Your task to perform on an android device: Go to ESPN.com Image 0: 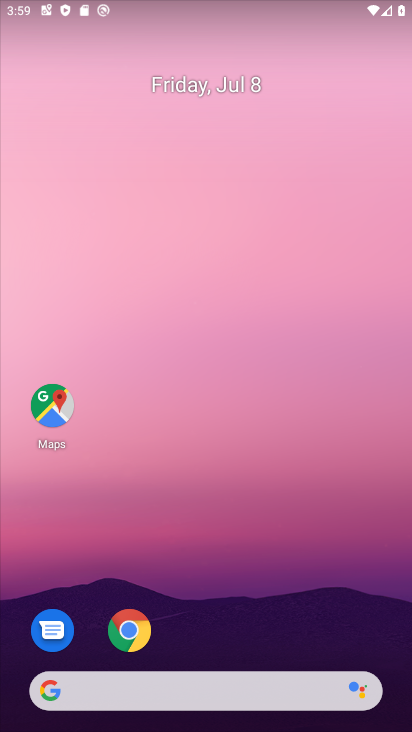
Step 0: drag from (326, 614) to (293, 175)
Your task to perform on an android device: Go to ESPN.com Image 1: 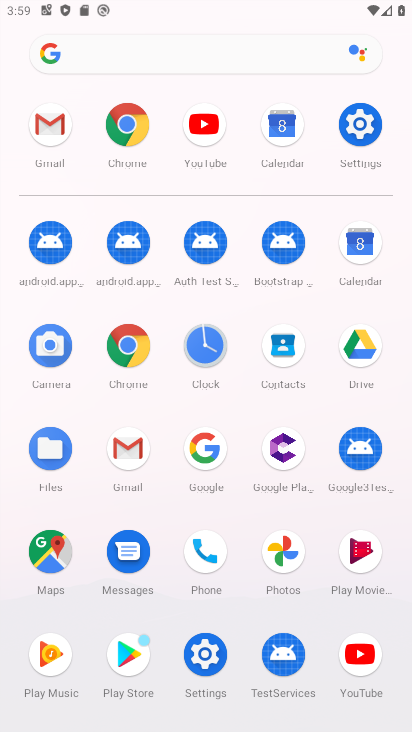
Step 1: click (142, 143)
Your task to perform on an android device: Go to ESPN.com Image 2: 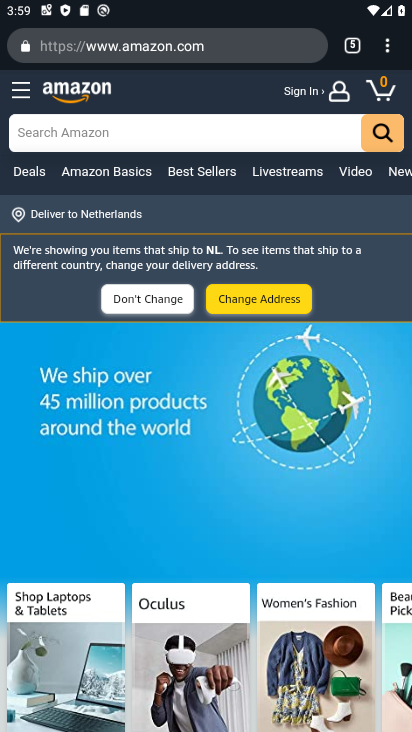
Step 2: click (234, 53)
Your task to perform on an android device: Go to ESPN.com Image 3: 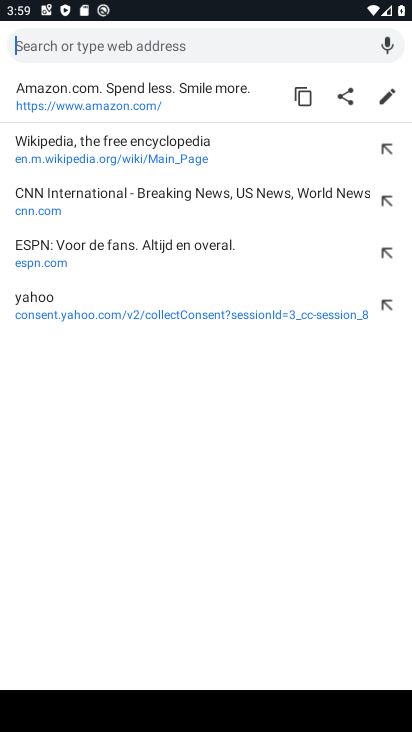
Step 3: click (216, 235)
Your task to perform on an android device: Go to ESPN.com Image 4: 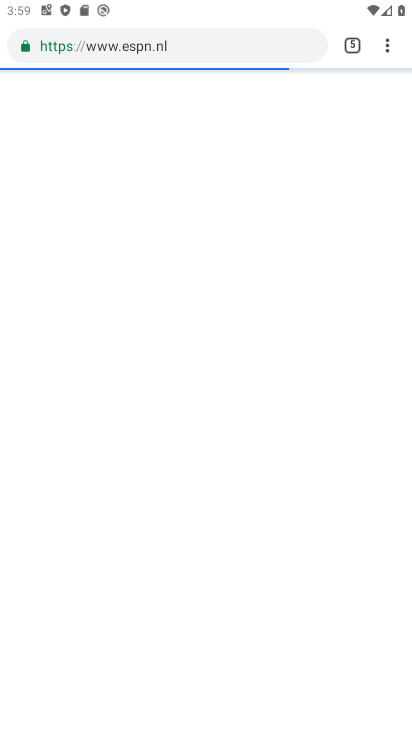
Step 4: task complete